Your task to perform on an android device: Open location settings Image 0: 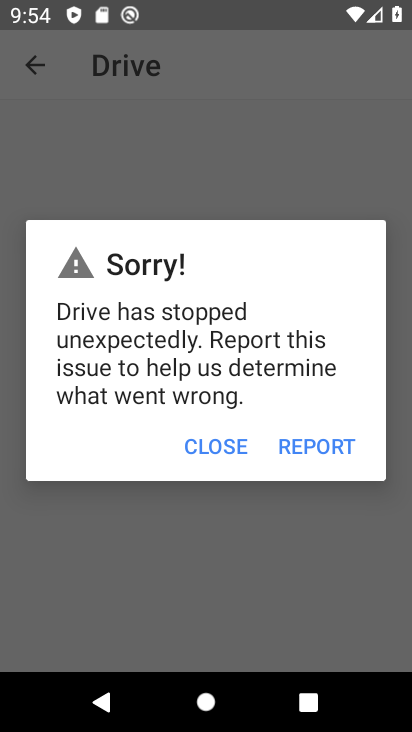
Step 0: press home button
Your task to perform on an android device: Open location settings Image 1: 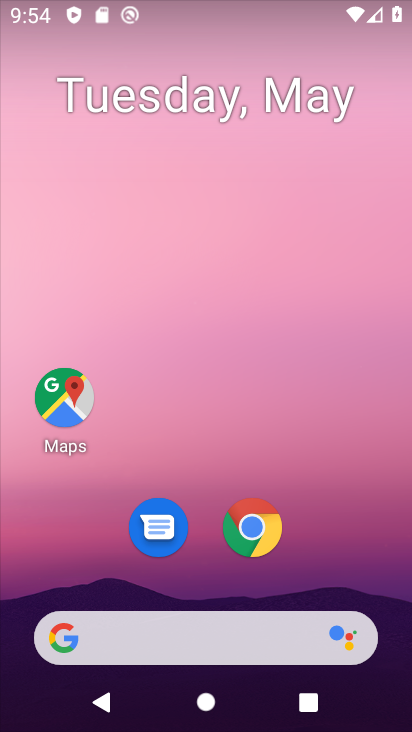
Step 1: drag from (217, 570) to (205, 59)
Your task to perform on an android device: Open location settings Image 2: 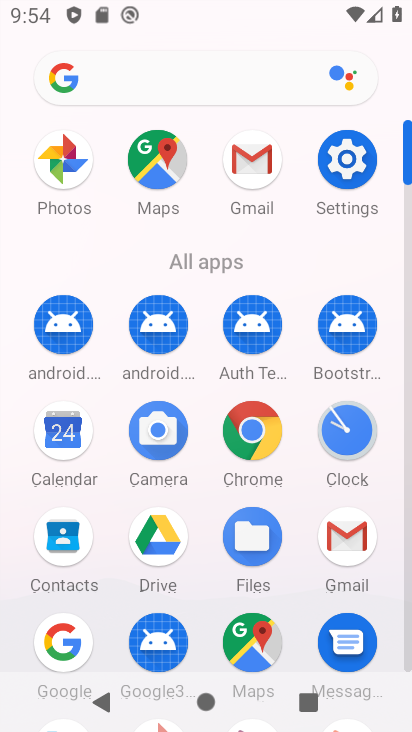
Step 2: click (341, 155)
Your task to perform on an android device: Open location settings Image 3: 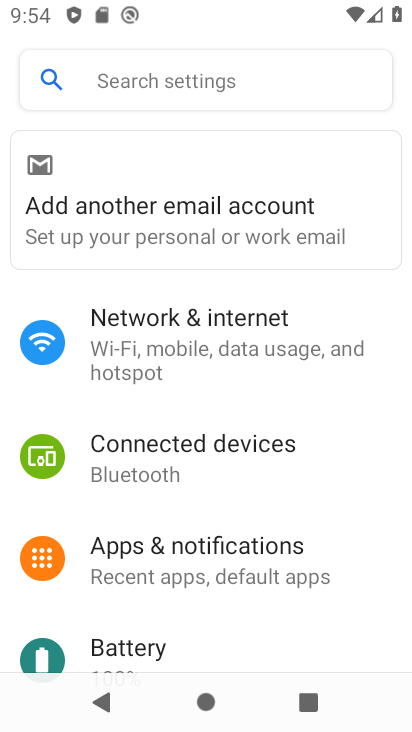
Step 3: drag from (224, 572) to (219, 105)
Your task to perform on an android device: Open location settings Image 4: 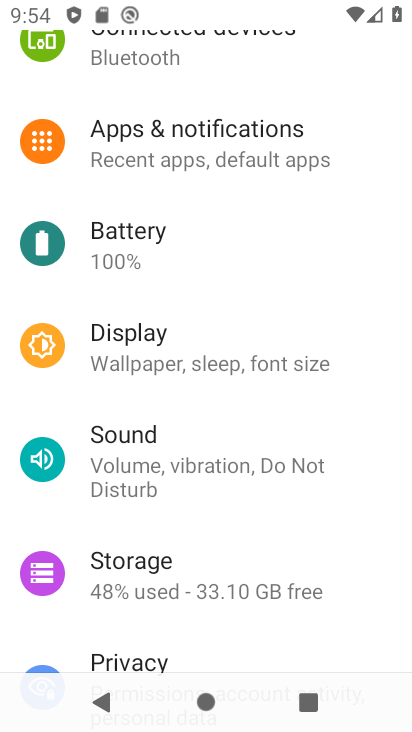
Step 4: drag from (220, 501) to (225, 118)
Your task to perform on an android device: Open location settings Image 5: 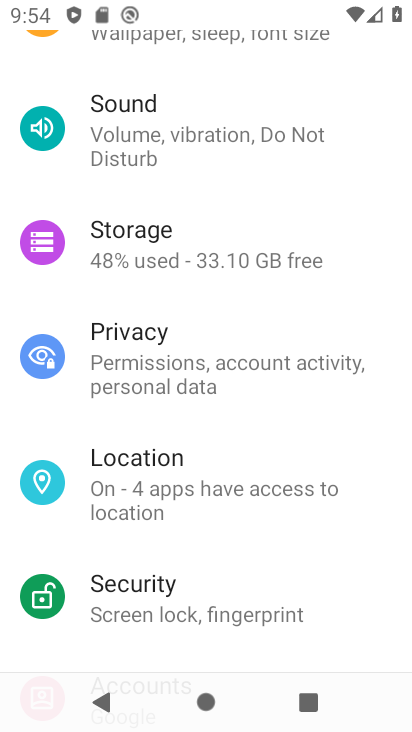
Step 5: click (196, 479)
Your task to perform on an android device: Open location settings Image 6: 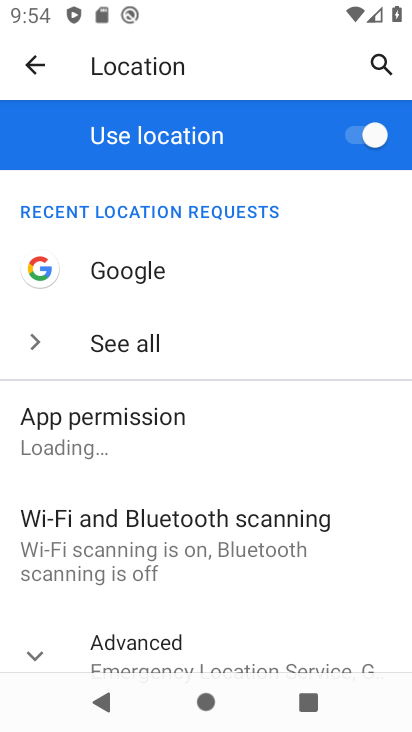
Step 6: task complete